Your task to perform on an android device: read, delete, or share a saved page in the chrome app Image 0: 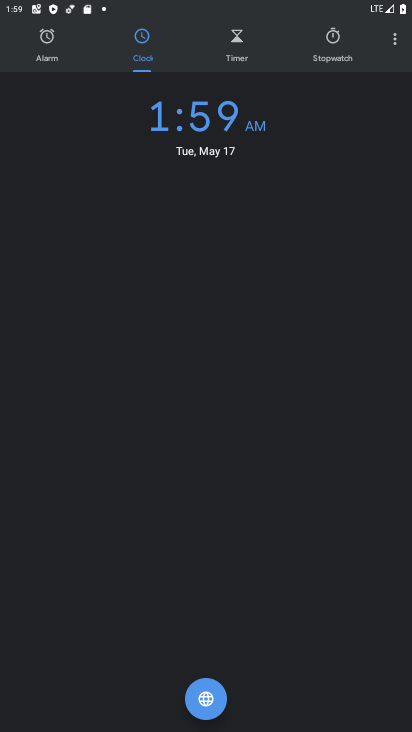
Step 0: press home button
Your task to perform on an android device: read, delete, or share a saved page in the chrome app Image 1: 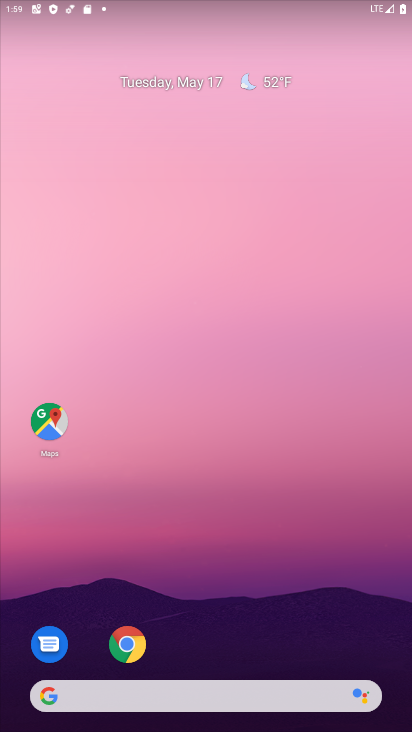
Step 1: click (140, 647)
Your task to perform on an android device: read, delete, or share a saved page in the chrome app Image 2: 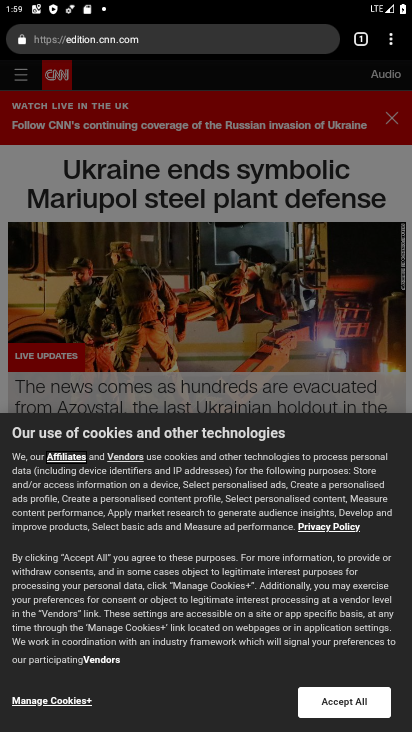
Step 2: click (384, 37)
Your task to perform on an android device: read, delete, or share a saved page in the chrome app Image 3: 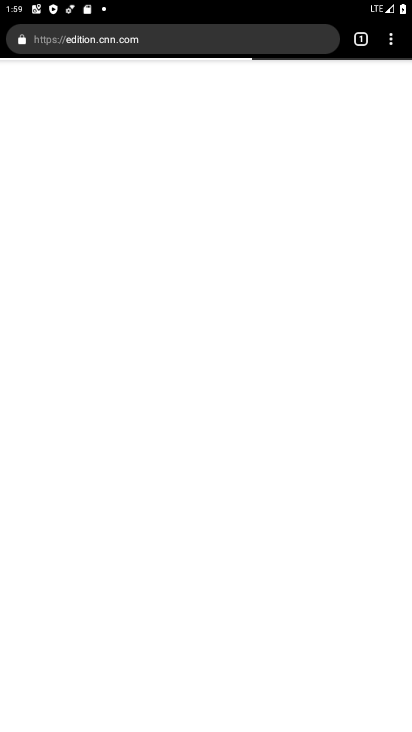
Step 3: task complete